Your task to perform on an android device: turn on location history Image 0: 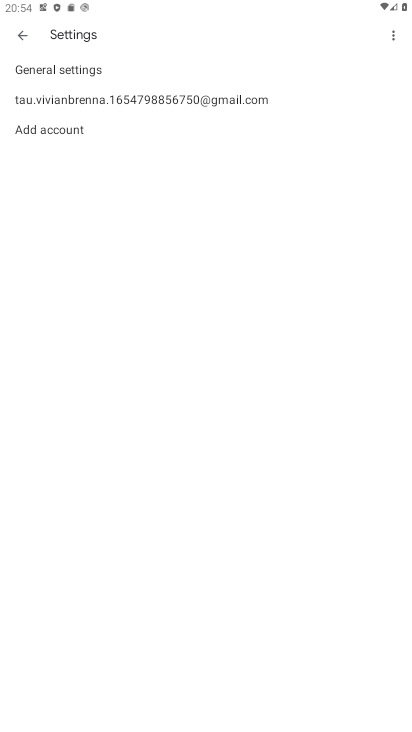
Step 0: press home button
Your task to perform on an android device: turn on location history Image 1: 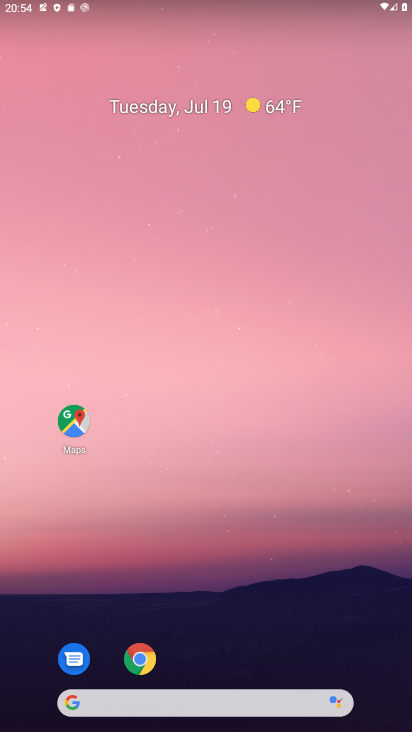
Step 1: drag from (264, 664) to (219, 206)
Your task to perform on an android device: turn on location history Image 2: 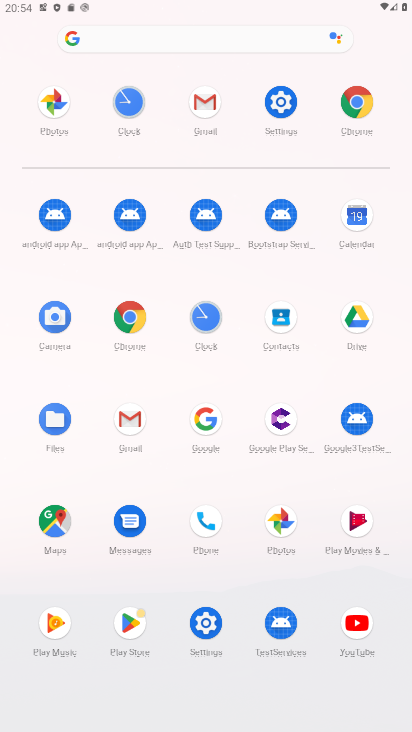
Step 2: click (285, 93)
Your task to perform on an android device: turn on location history Image 3: 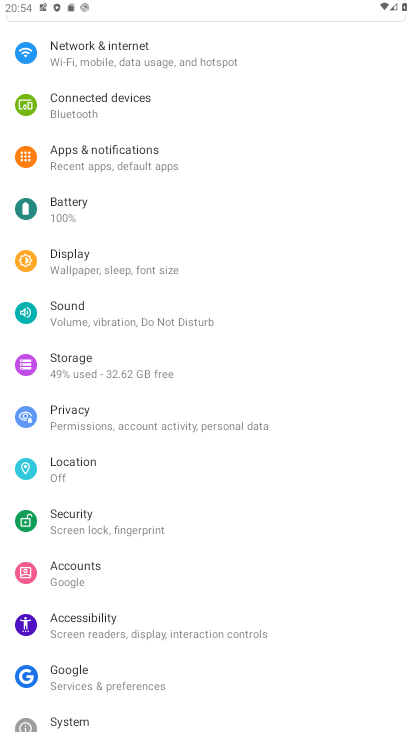
Step 3: click (93, 471)
Your task to perform on an android device: turn on location history Image 4: 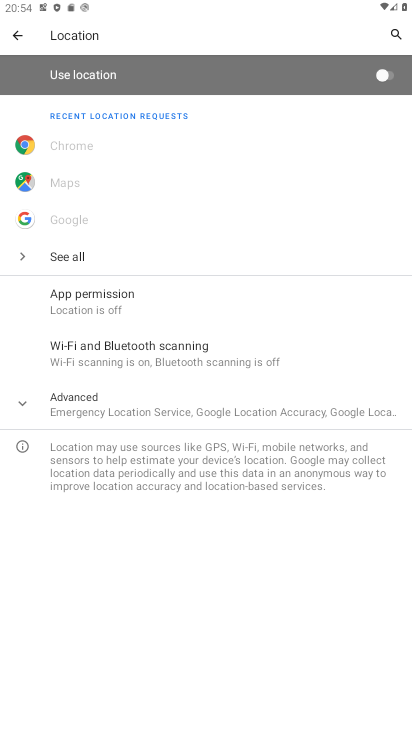
Step 4: click (126, 409)
Your task to perform on an android device: turn on location history Image 5: 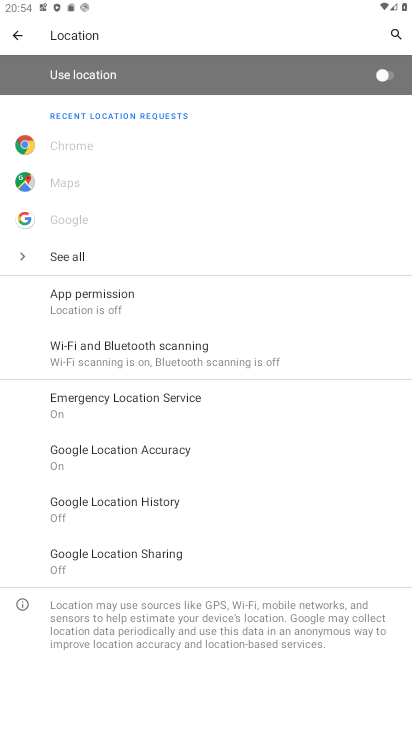
Step 5: click (178, 496)
Your task to perform on an android device: turn on location history Image 6: 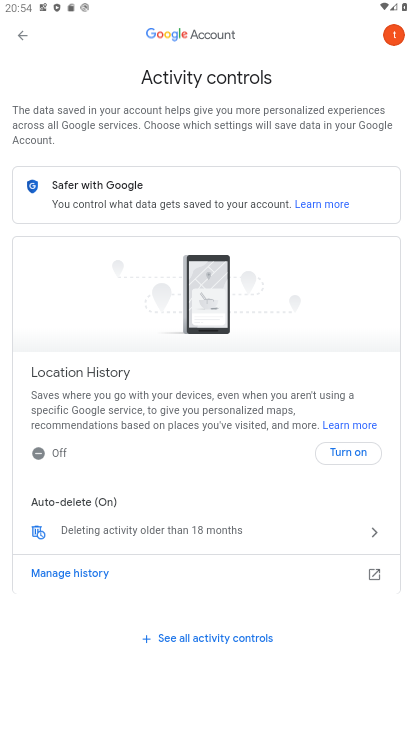
Step 6: click (336, 460)
Your task to perform on an android device: turn on location history Image 7: 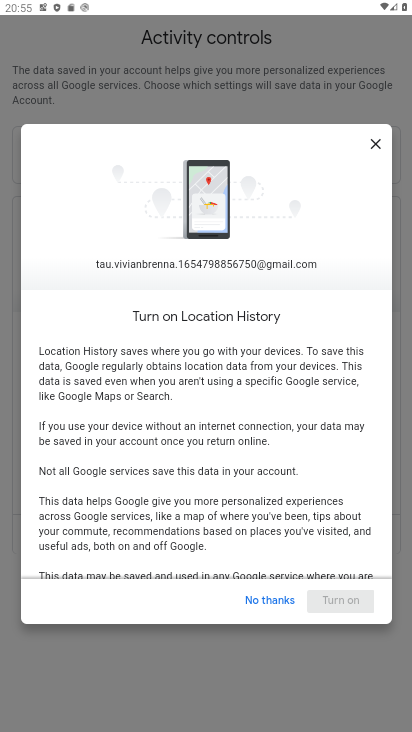
Step 7: drag from (227, 525) to (296, 86)
Your task to perform on an android device: turn on location history Image 8: 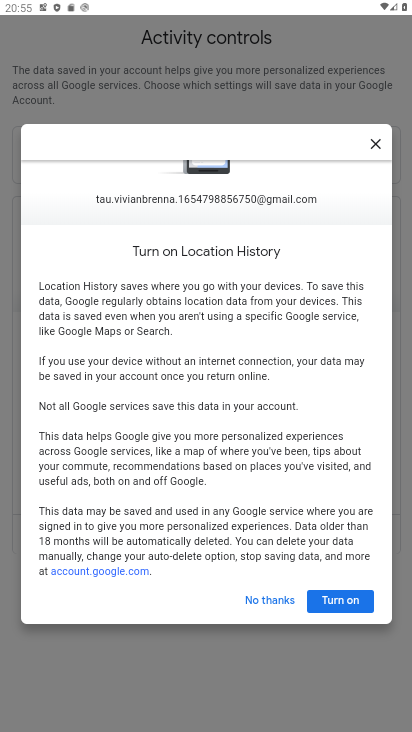
Step 8: drag from (194, 572) to (207, 246)
Your task to perform on an android device: turn on location history Image 9: 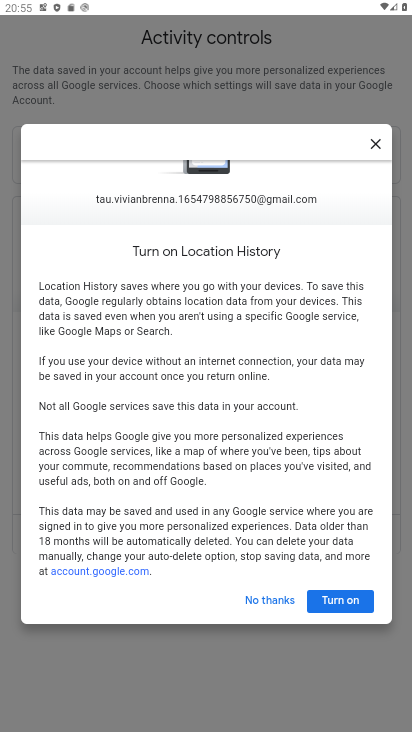
Step 9: click (347, 597)
Your task to perform on an android device: turn on location history Image 10: 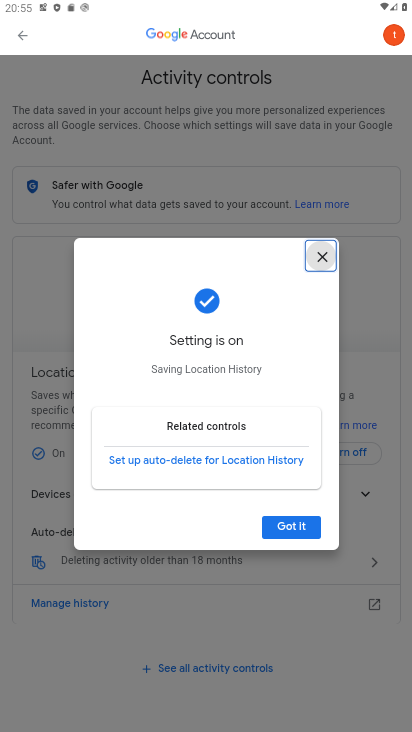
Step 10: click (303, 526)
Your task to perform on an android device: turn on location history Image 11: 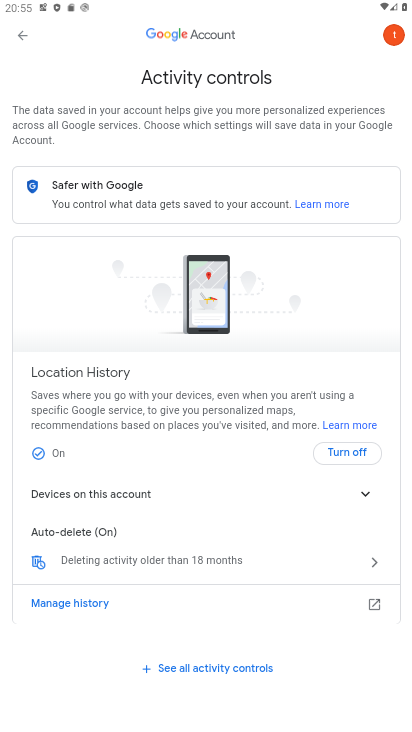
Step 11: task complete